Your task to perform on an android device: turn on notifications settings in the gmail app Image 0: 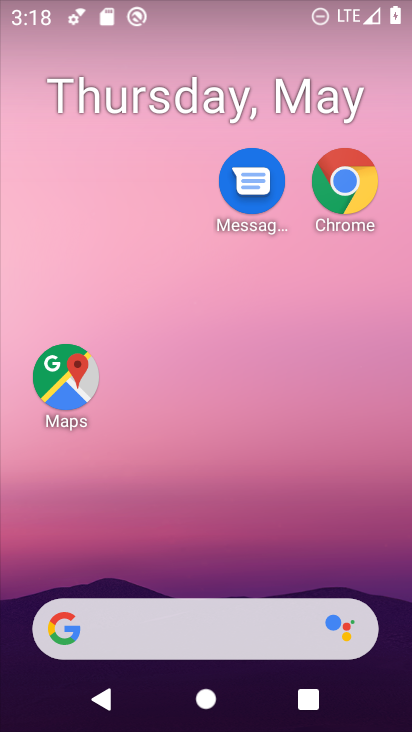
Step 0: drag from (324, 598) to (395, 29)
Your task to perform on an android device: turn on notifications settings in the gmail app Image 1: 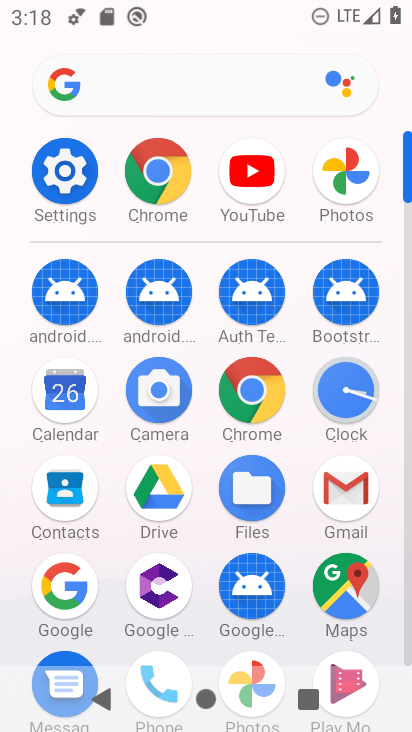
Step 1: click (353, 503)
Your task to perform on an android device: turn on notifications settings in the gmail app Image 2: 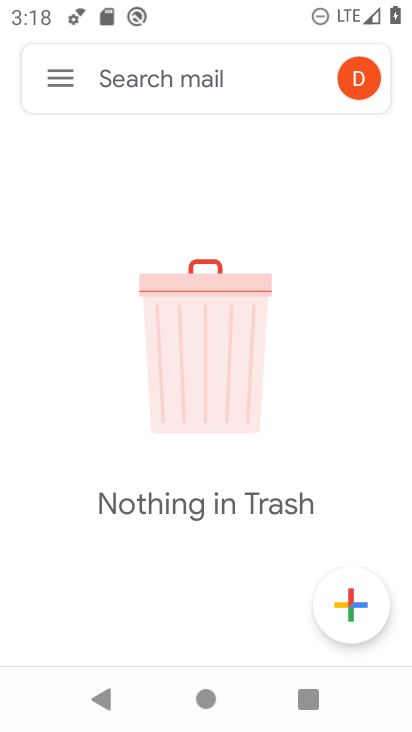
Step 2: click (55, 73)
Your task to perform on an android device: turn on notifications settings in the gmail app Image 3: 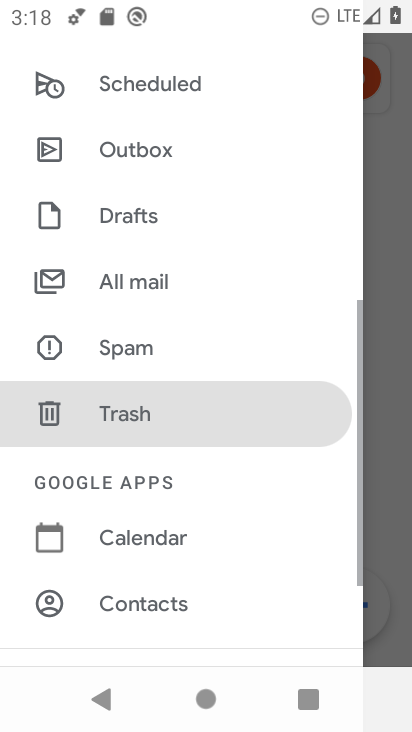
Step 3: drag from (196, 571) to (261, 100)
Your task to perform on an android device: turn on notifications settings in the gmail app Image 4: 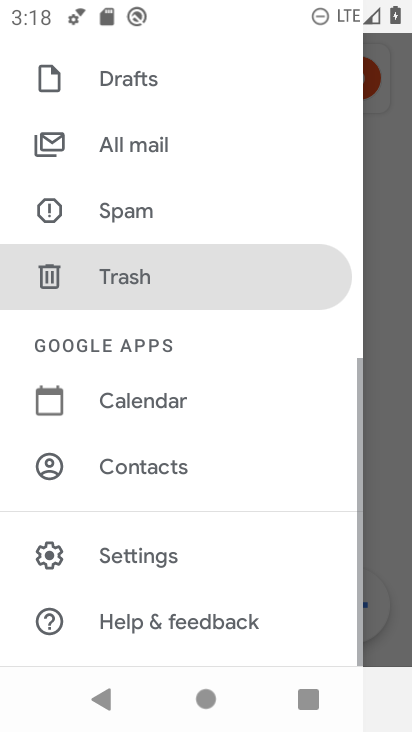
Step 4: click (174, 553)
Your task to perform on an android device: turn on notifications settings in the gmail app Image 5: 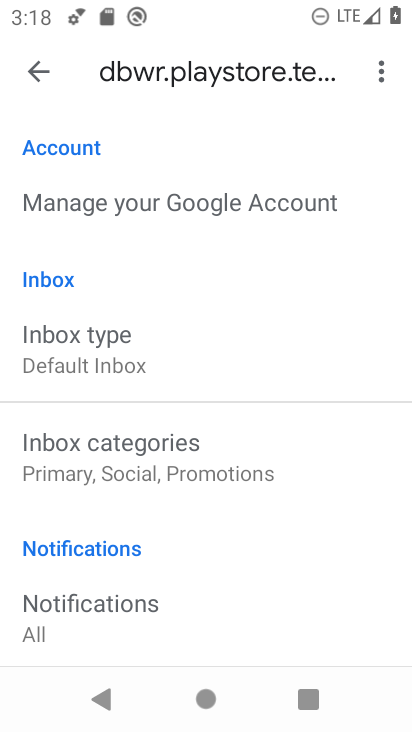
Step 5: drag from (207, 637) to (201, 196)
Your task to perform on an android device: turn on notifications settings in the gmail app Image 6: 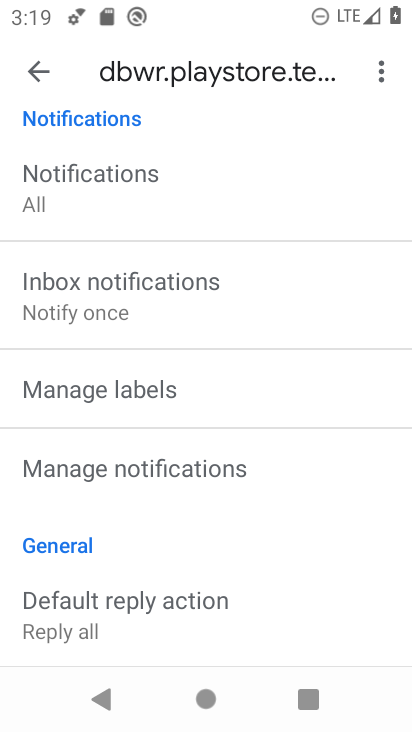
Step 6: click (142, 452)
Your task to perform on an android device: turn on notifications settings in the gmail app Image 7: 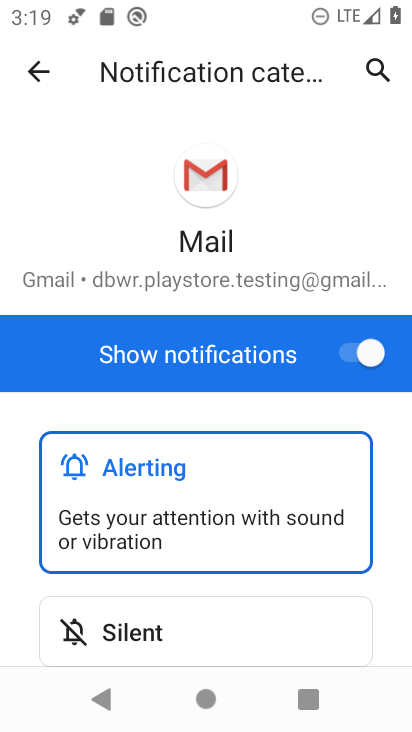
Step 7: click (353, 358)
Your task to perform on an android device: turn on notifications settings in the gmail app Image 8: 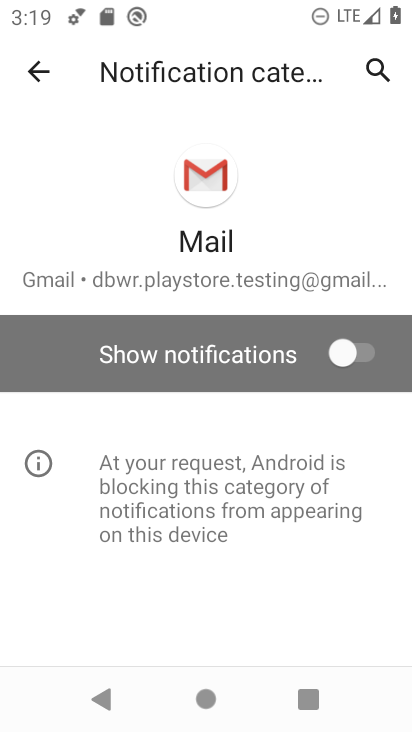
Step 8: click (369, 351)
Your task to perform on an android device: turn on notifications settings in the gmail app Image 9: 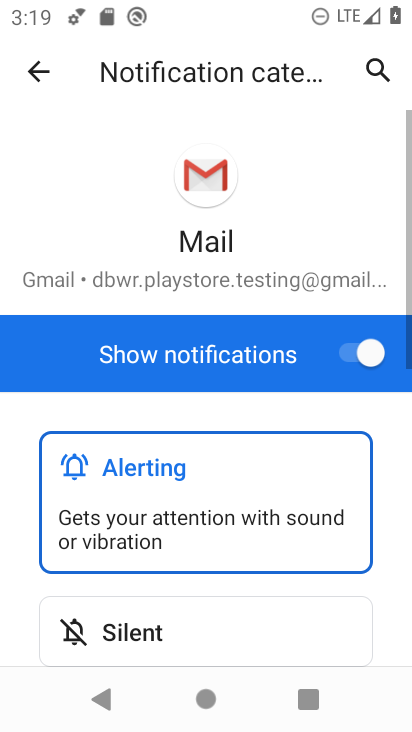
Step 9: task complete